Your task to perform on an android device: Open maps Image 0: 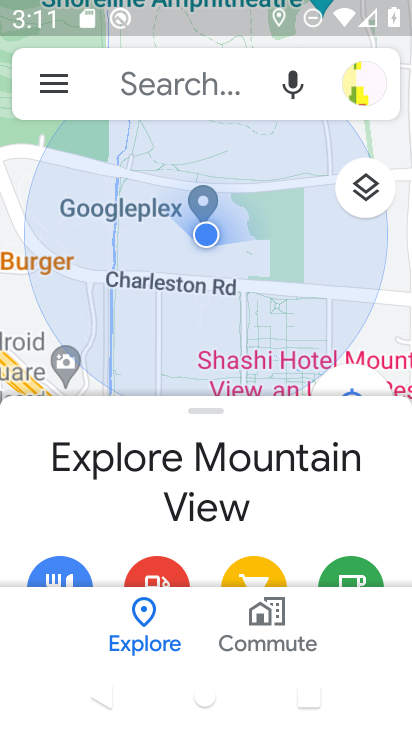
Step 0: press home button
Your task to perform on an android device: Open maps Image 1: 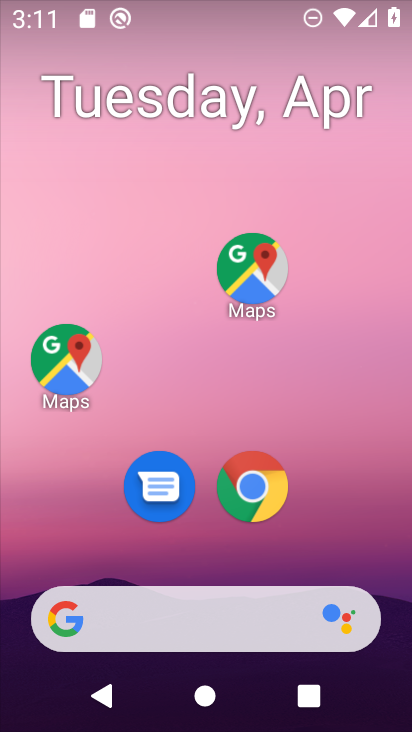
Step 1: click (68, 394)
Your task to perform on an android device: Open maps Image 2: 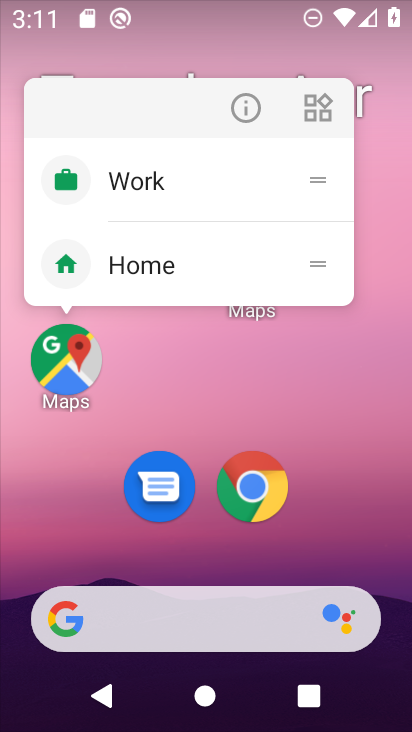
Step 2: click (255, 102)
Your task to perform on an android device: Open maps Image 3: 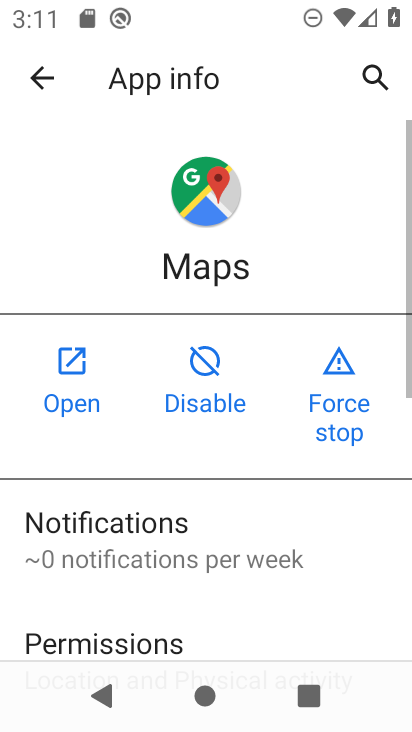
Step 3: click (64, 390)
Your task to perform on an android device: Open maps Image 4: 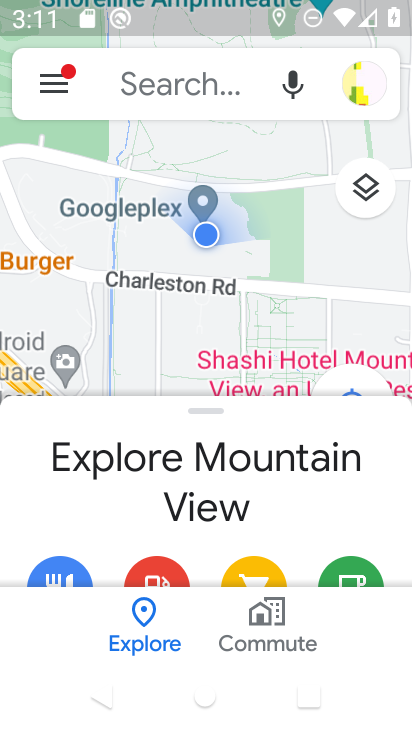
Step 4: task complete